Your task to perform on an android device: install app "DuckDuckGo Privacy Browser" Image 0: 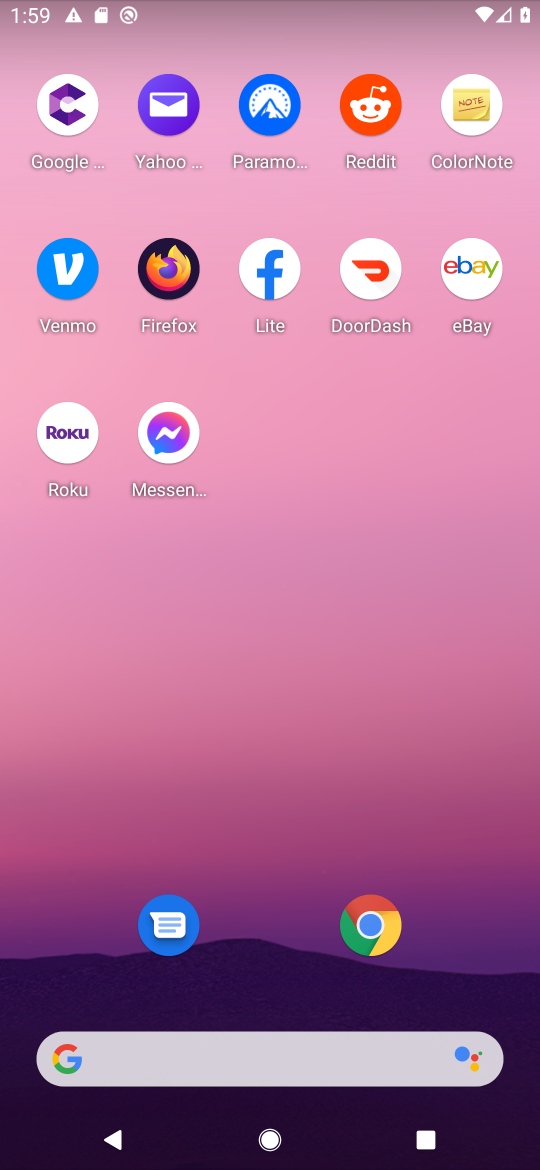
Step 0: click (161, 2)
Your task to perform on an android device: install app "DuckDuckGo Privacy Browser" Image 1: 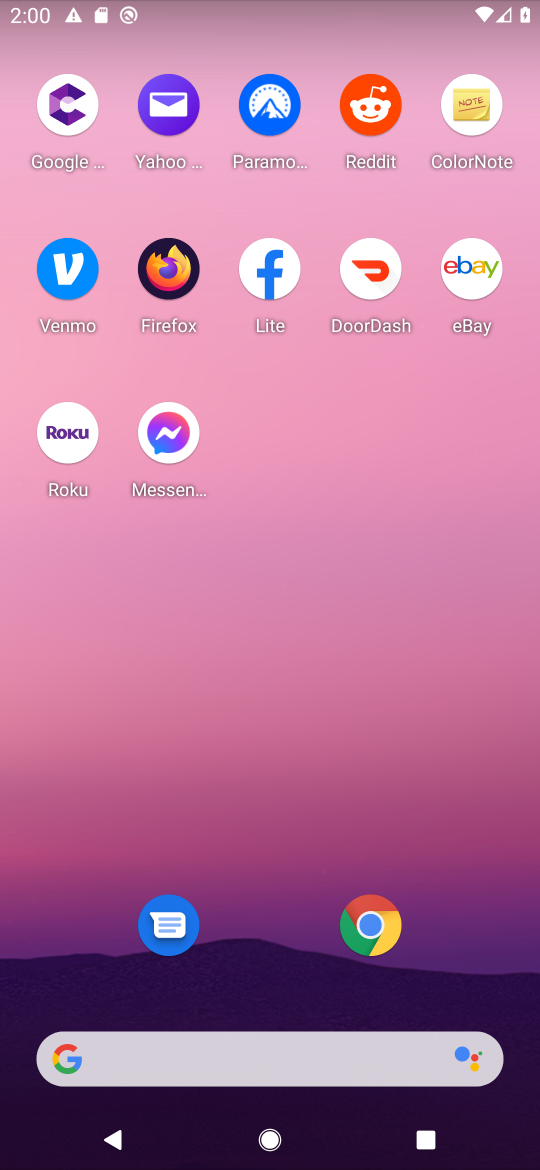
Step 1: drag from (262, 930) to (262, 398)
Your task to perform on an android device: install app "DuckDuckGo Privacy Browser" Image 2: 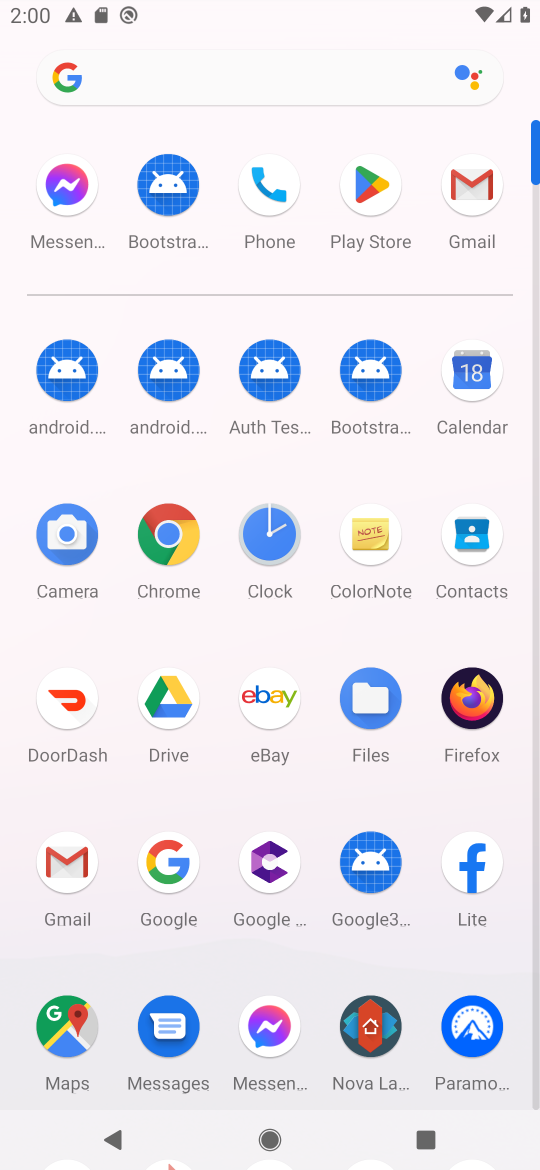
Step 2: click (366, 201)
Your task to perform on an android device: install app "DuckDuckGo Privacy Browser" Image 3: 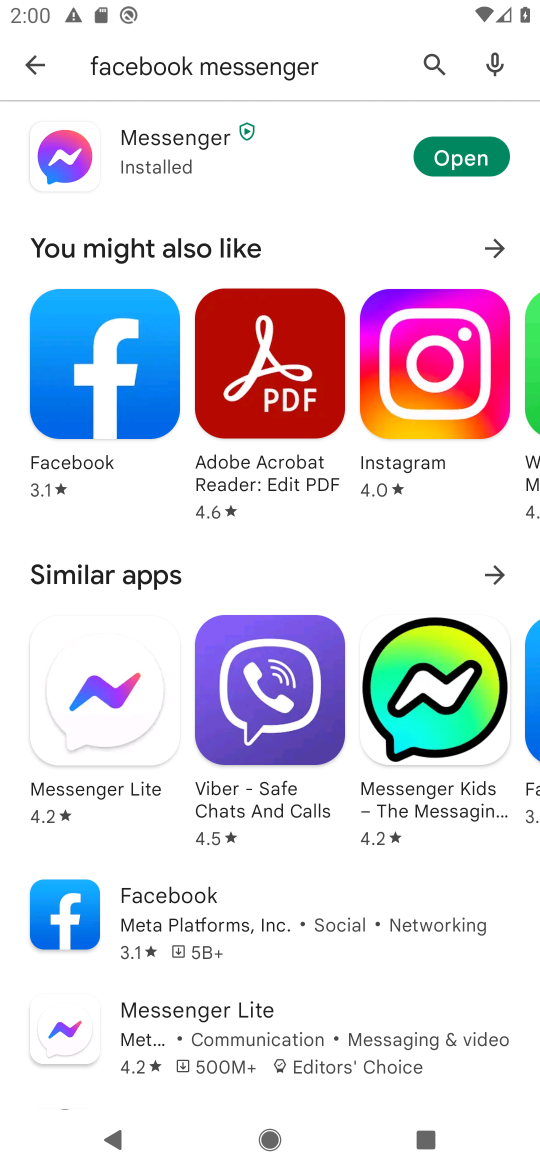
Step 3: click (33, 58)
Your task to perform on an android device: install app "DuckDuckGo Privacy Browser" Image 4: 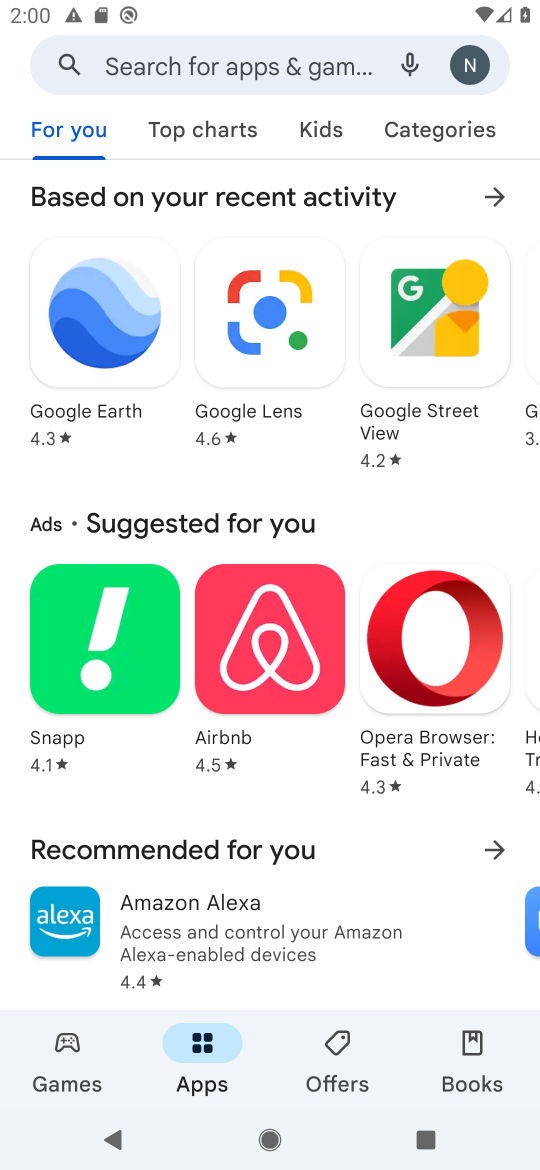
Step 4: click (160, 67)
Your task to perform on an android device: install app "DuckDuckGo Privacy Browser" Image 5: 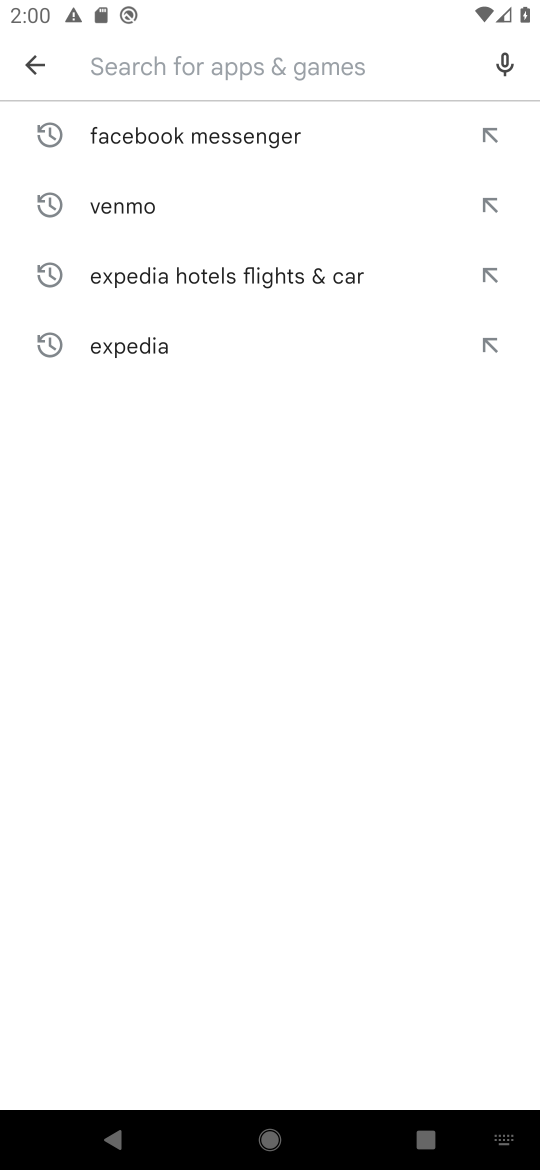
Step 5: type "DuckDuckGo Privacy Browser"
Your task to perform on an android device: install app "DuckDuckGo Privacy Browser" Image 6: 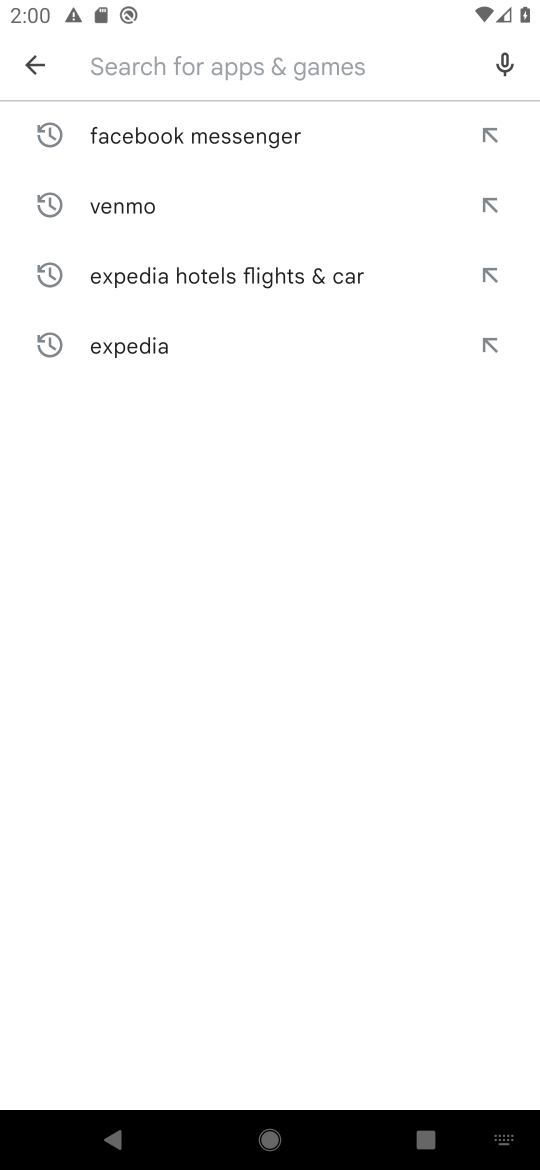
Step 6: click (281, 142)
Your task to perform on an android device: install app "DuckDuckGo Privacy Browser" Image 7: 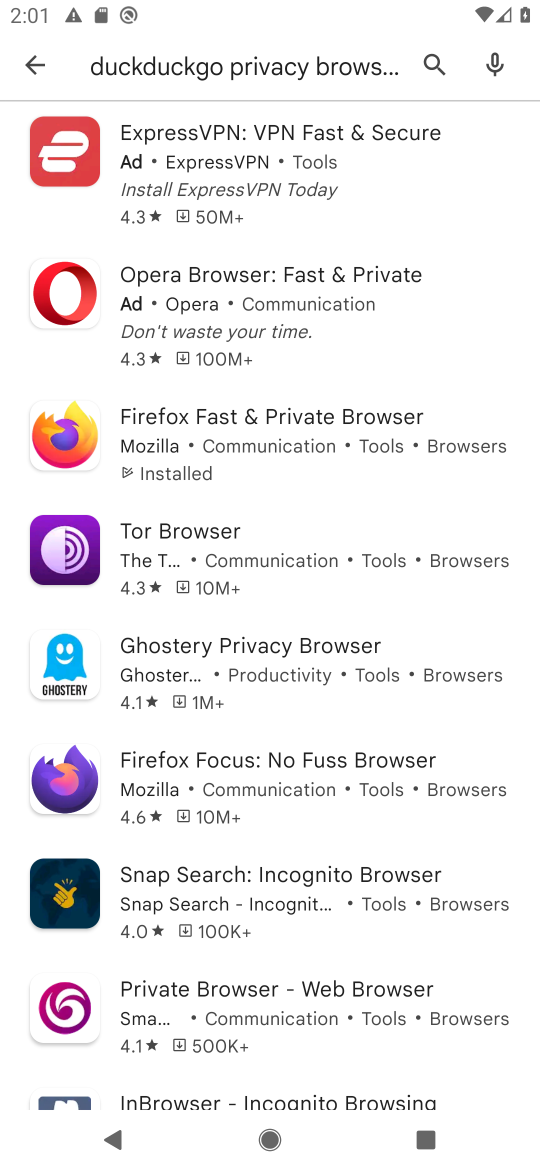
Step 7: click (275, 335)
Your task to perform on an android device: install app "DuckDuckGo Privacy Browser" Image 8: 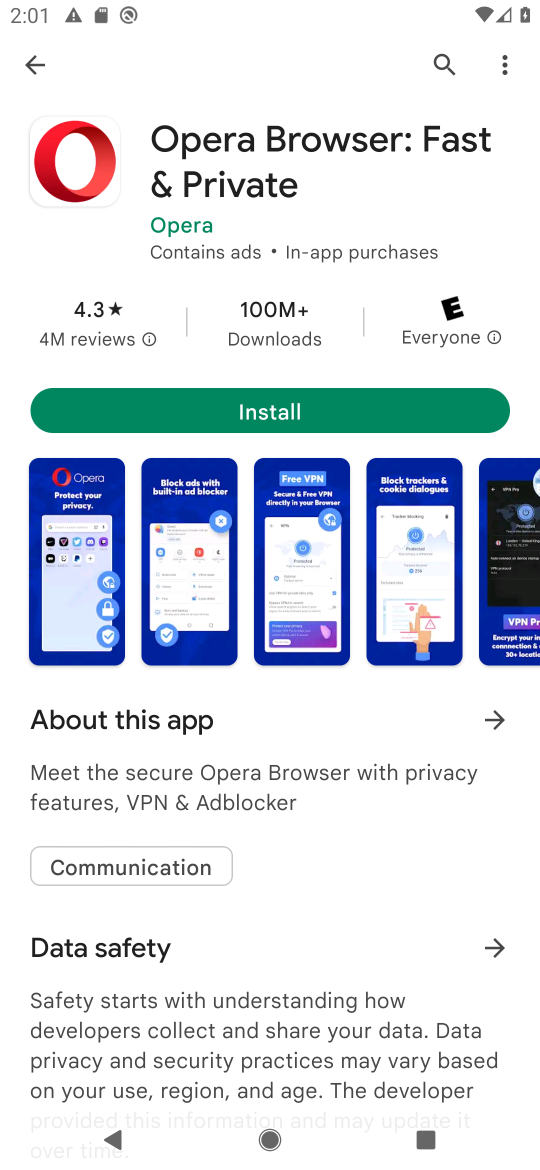
Step 8: task complete